Your task to perform on an android device: Open battery settings Image 0: 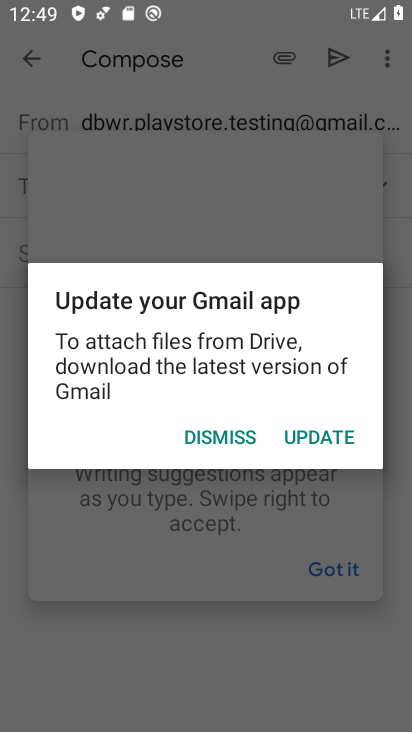
Step 0: press home button
Your task to perform on an android device: Open battery settings Image 1: 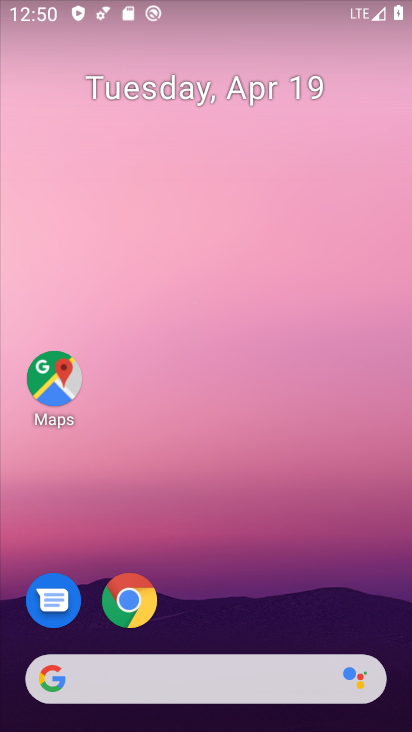
Step 1: drag from (223, 637) to (220, 14)
Your task to perform on an android device: Open battery settings Image 2: 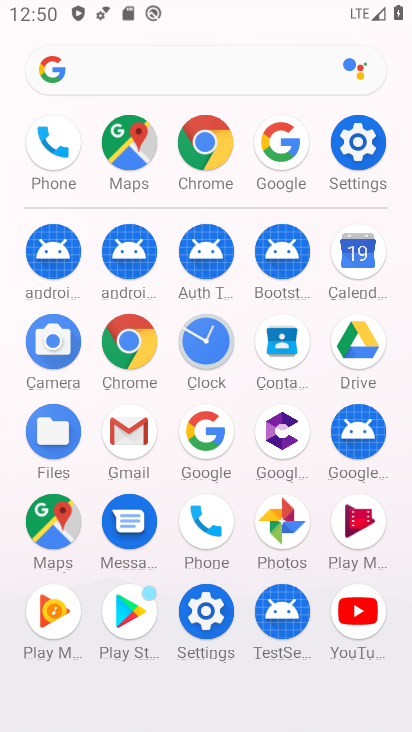
Step 2: click (209, 610)
Your task to perform on an android device: Open battery settings Image 3: 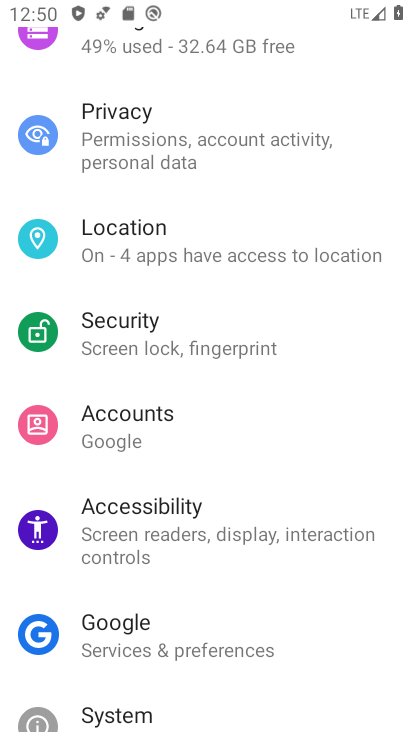
Step 3: drag from (163, 384) to (112, 11)
Your task to perform on an android device: Open battery settings Image 4: 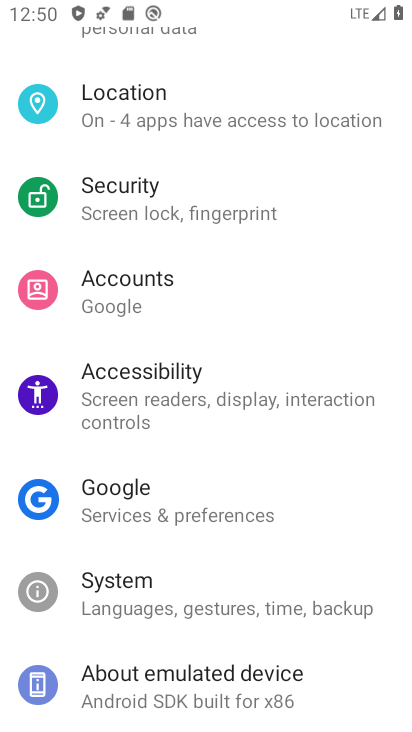
Step 4: drag from (148, 214) to (140, 728)
Your task to perform on an android device: Open battery settings Image 5: 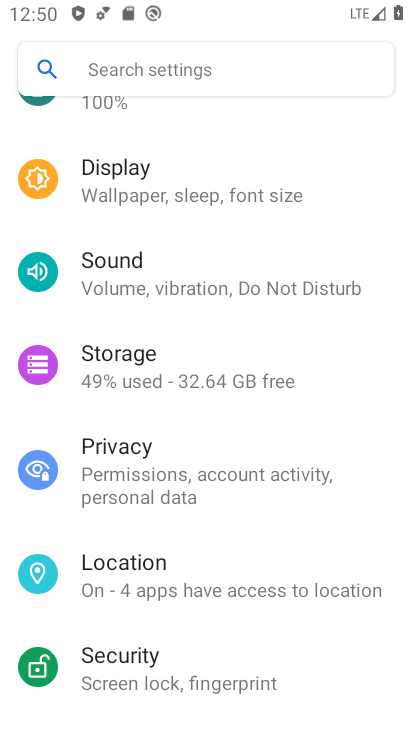
Step 5: click (148, 119)
Your task to perform on an android device: Open battery settings Image 6: 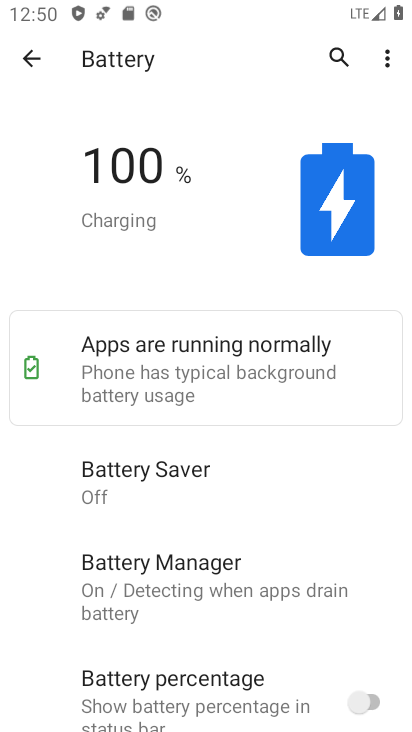
Step 6: task complete